Your task to perform on an android device: Open Amazon Image 0: 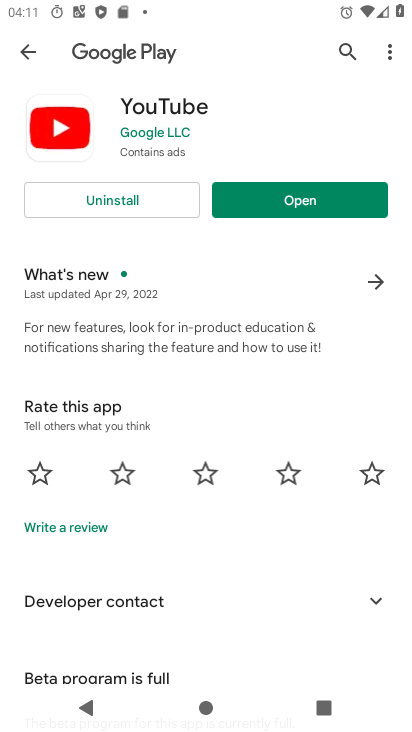
Step 0: press home button
Your task to perform on an android device: Open Amazon Image 1: 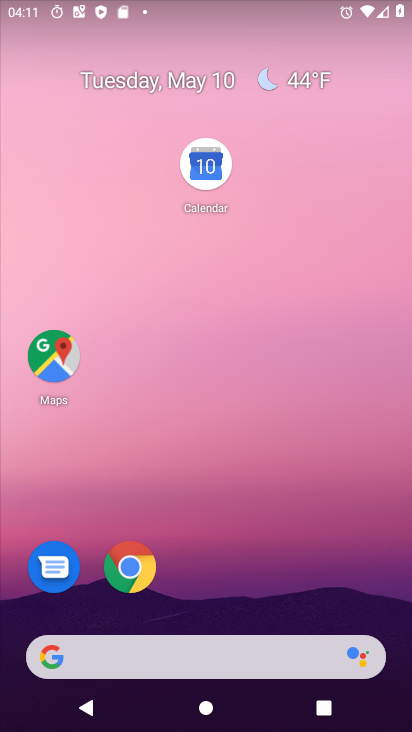
Step 1: click (132, 564)
Your task to perform on an android device: Open Amazon Image 2: 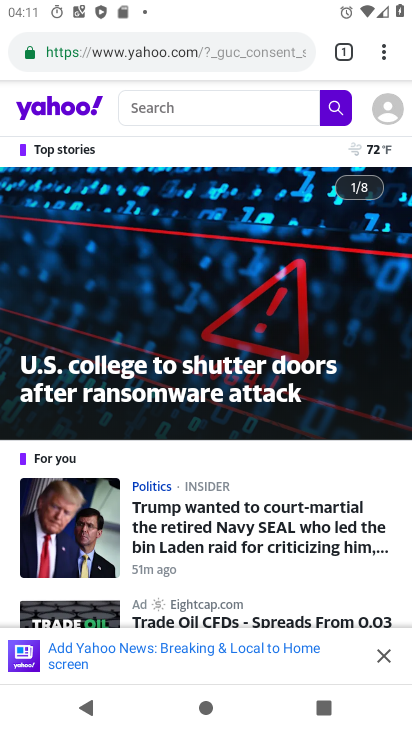
Step 2: press back button
Your task to perform on an android device: Open Amazon Image 3: 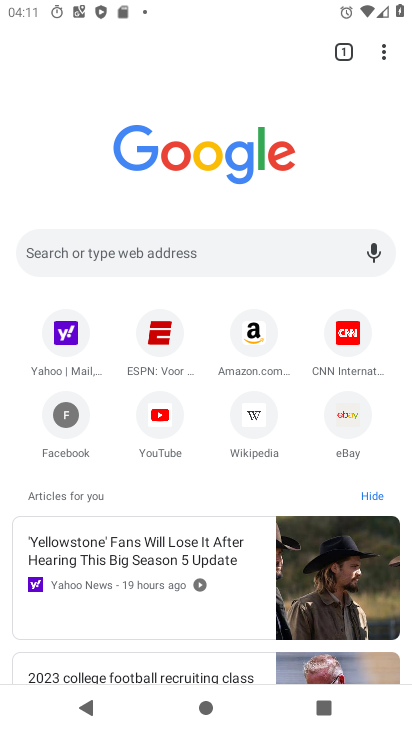
Step 3: click (257, 341)
Your task to perform on an android device: Open Amazon Image 4: 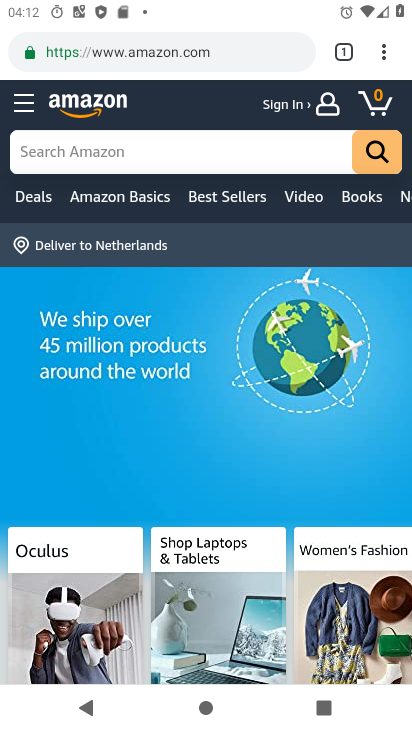
Step 4: task complete